Your task to perform on an android device: Open notification settings Image 0: 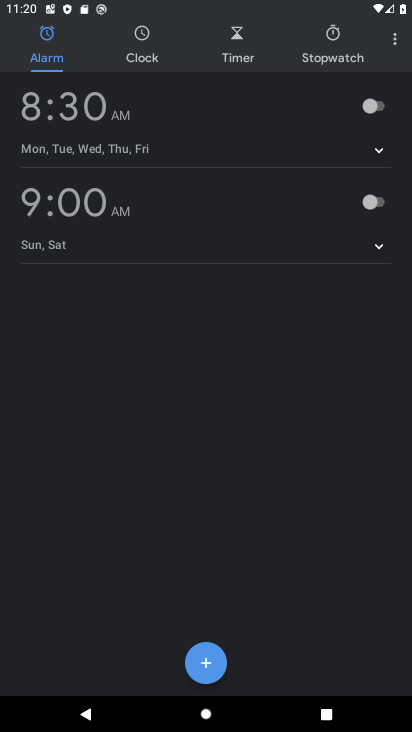
Step 0: press home button
Your task to perform on an android device: Open notification settings Image 1: 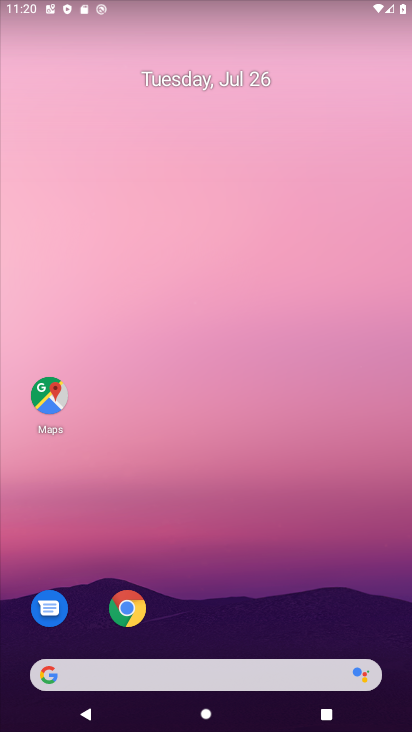
Step 1: drag from (272, 604) to (194, 83)
Your task to perform on an android device: Open notification settings Image 2: 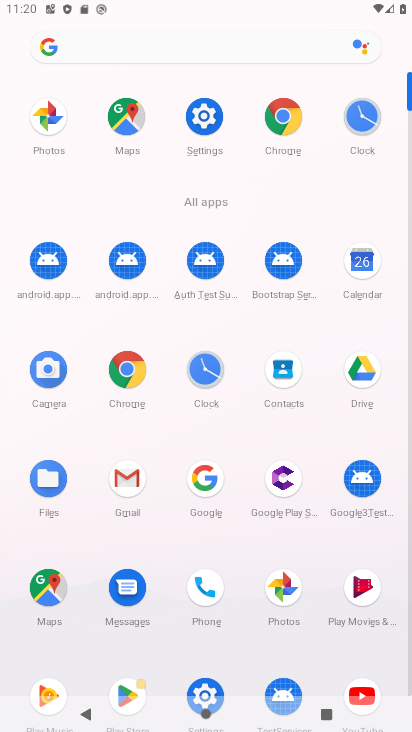
Step 2: click (203, 114)
Your task to perform on an android device: Open notification settings Image 3: 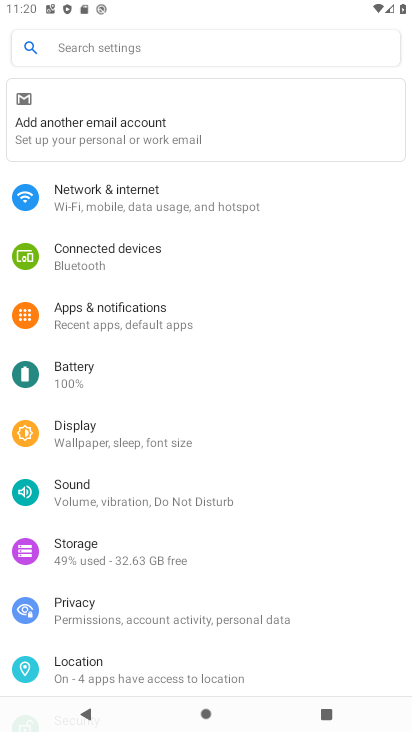
Step 3: click (134, 321)
Your task to perform on an android device: Open notification settings Image 4: 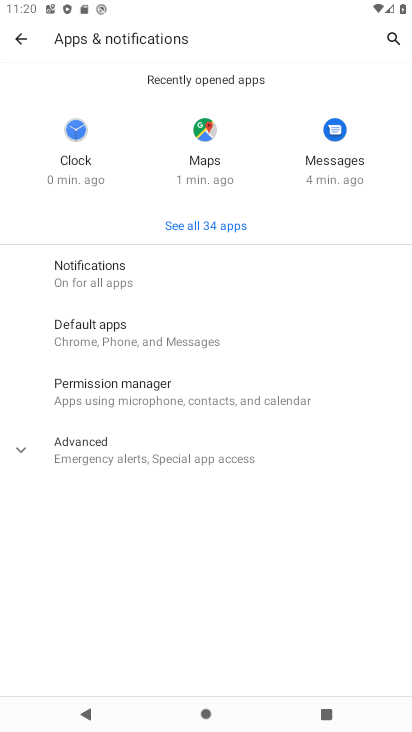
Step 4: click (147, 279)
Your task to perform on an android device: Open notification settings Image 5: 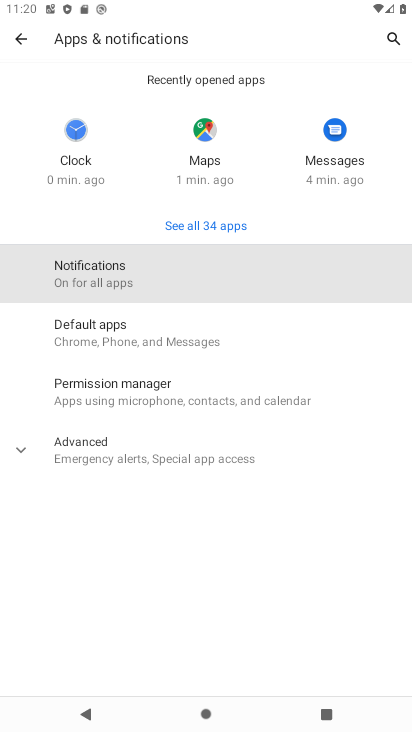
Step 5: click (147, 279)
Your task to perform on an android device: Open notification settings Image 6: 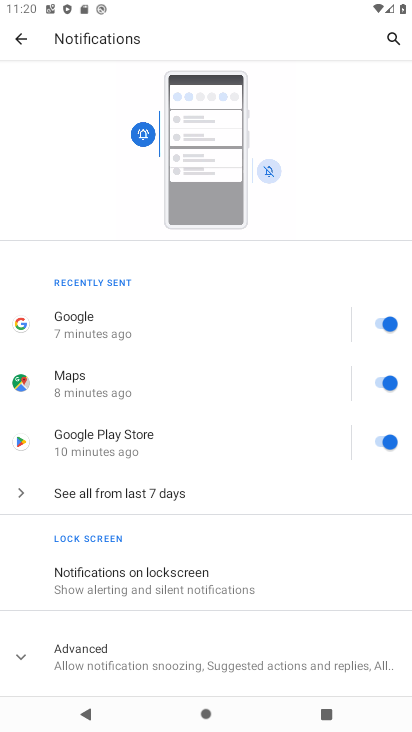
Step 6: task complete